Your task to perform on an android device: Open the map Image 0: 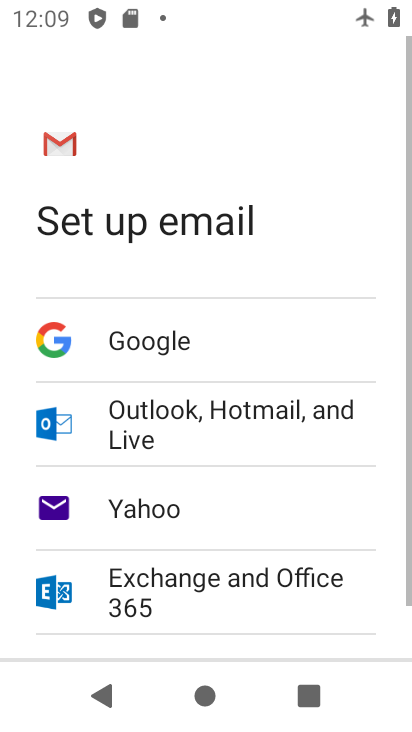
Step 0: press back button
Your task to perform on an android device: Open the map Image 1: 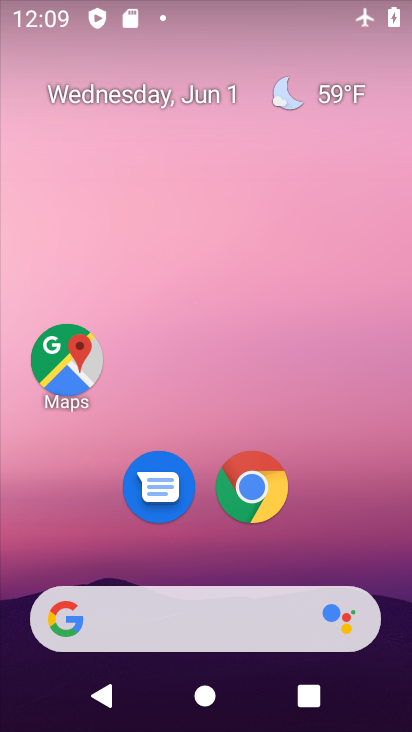
Step 1: click (74, 352)
Your task to perform on an android device: Open the map Image 2: 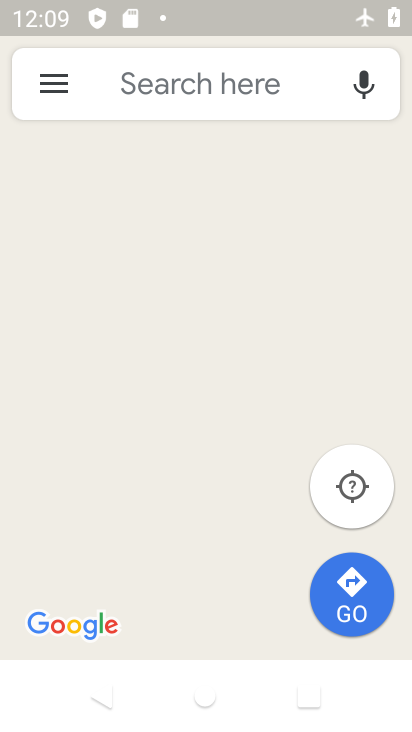
Step 2: task complete